Your task to perform on an android device: turn smart compose on in the gmail app Image 0: 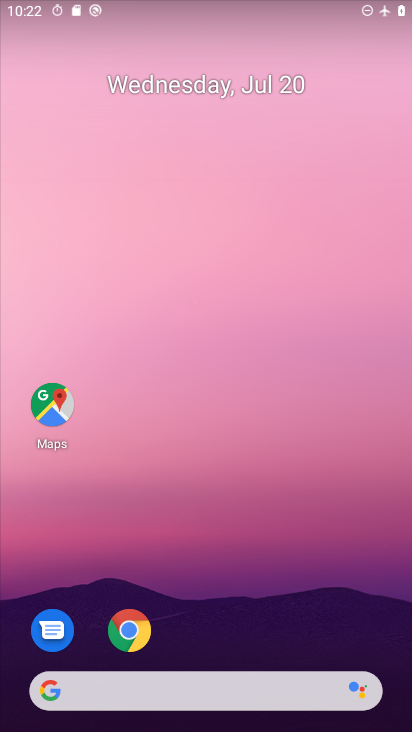
Step 0: drag from (242, 635) to (280, 240)
Your task to perform on an android device: turn smart compose on in the gmail app Image 1: 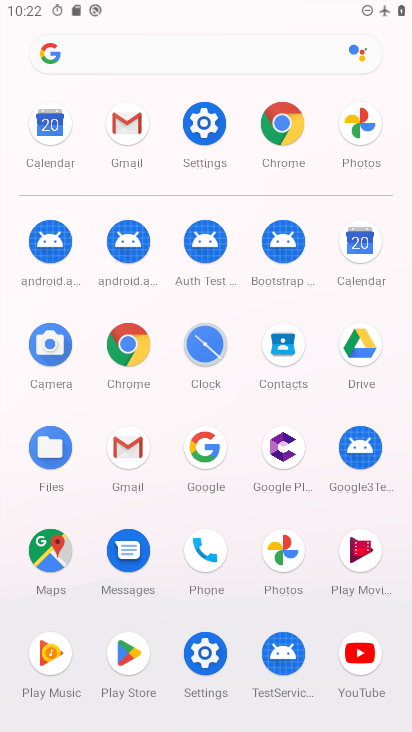
Step 1: click (132, 469)
Your task to perform on an android device: turn smart compose on in the gmail app Image 2: 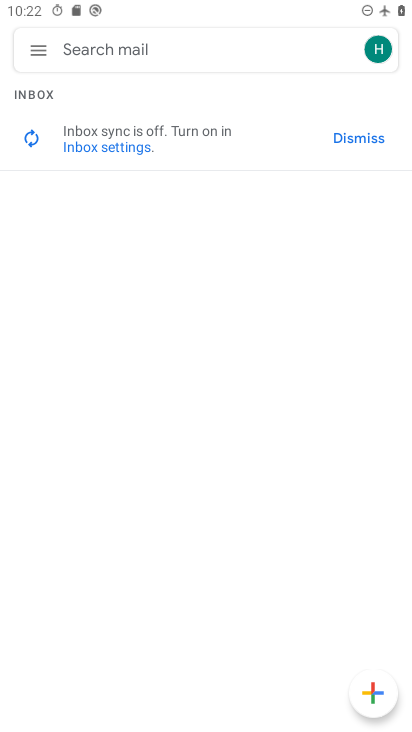
Step 2: click (28, 59)
Your task to perform on an android device: turn smart compose on in the gmail app Image 3: 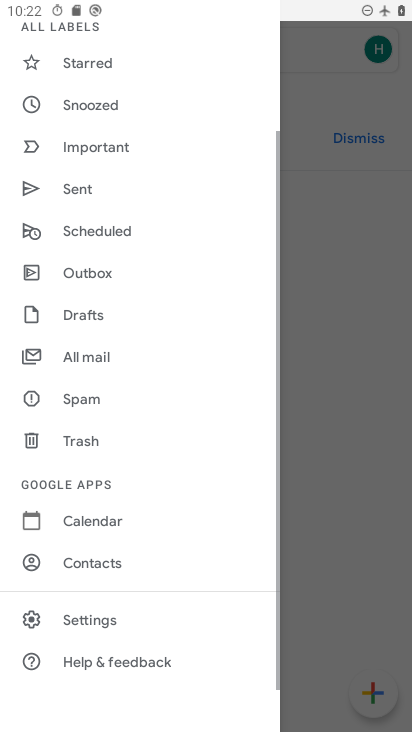
Step 3: click (123, 608)
Your task to perform on an android device: turn smart compose on in the gmail app Image 4: 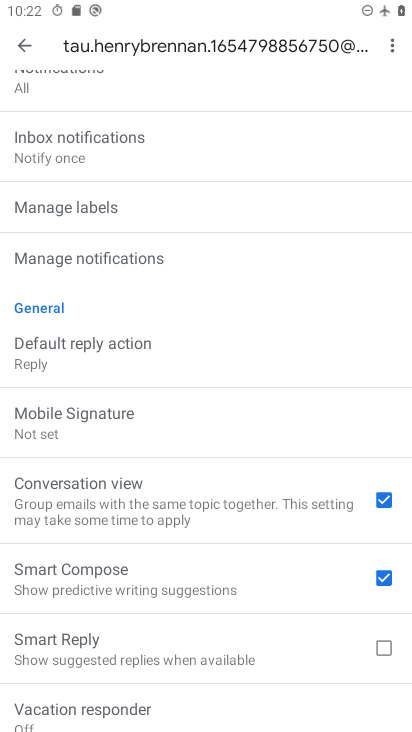
Step 4: task complete